Your task to perform on an android device: see tabs open on other devices in the chrome app Image 0: 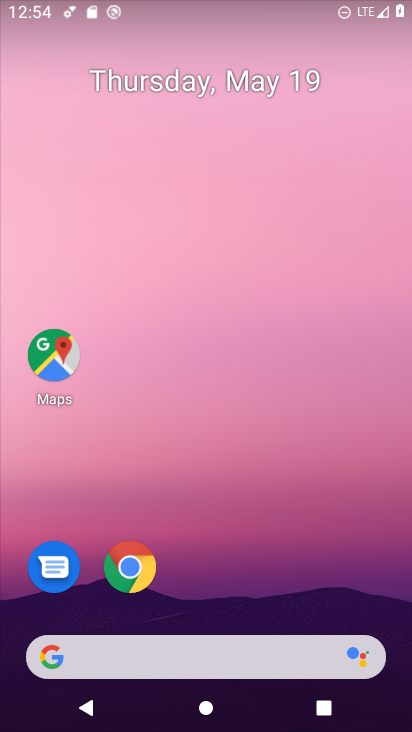
Step 0: click (140, 567)
Your task to perform on an android device: see tabs open on other devices in the chrome app Image 1: 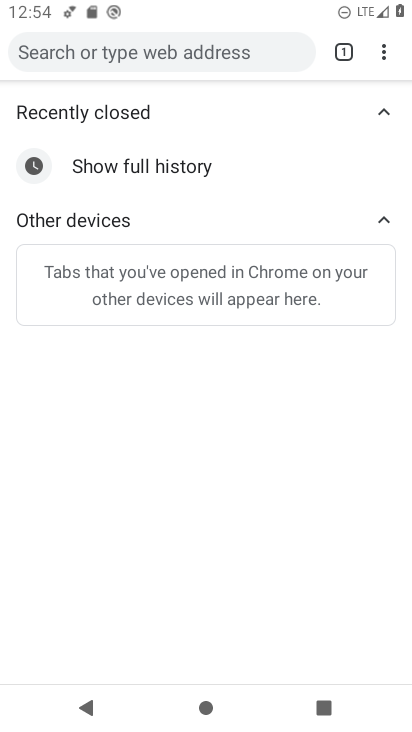
Step 1: click (383, 50)
Your task to perform on an android device: see tabs open on other devices in the chrome app Image 2: 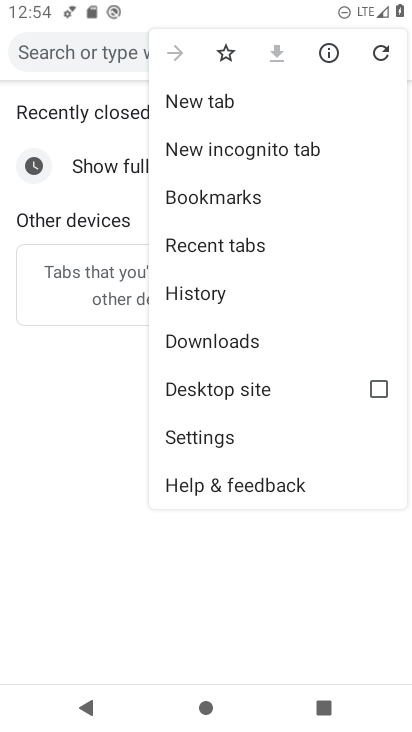
Step 2: click (235, 237)
Your task to perform on an android device: see tabs open on other devices in the chrome app Image 3: 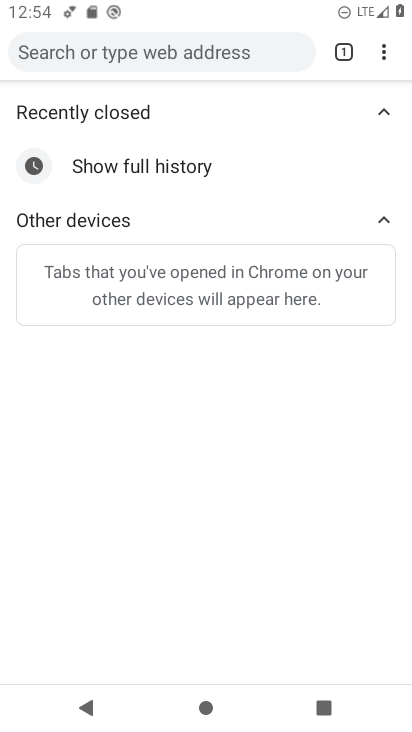
Step 3: task complete